Your task to perform on an android device: check the backup settings in the google photos Image 0: 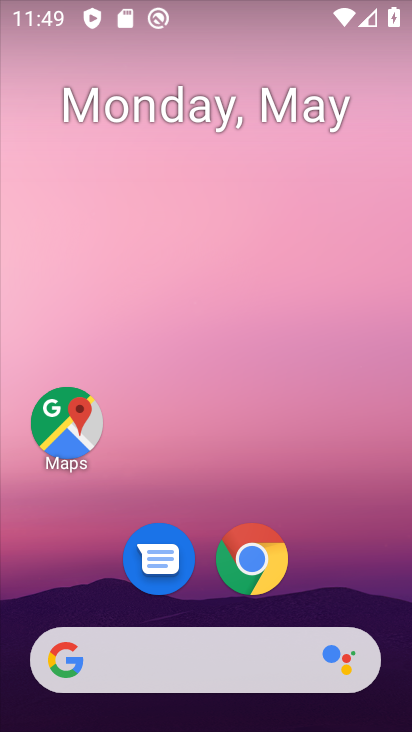
Step 0: drag from (326, 478) to (335, 16)
Your task to perform on an android device: check the backup settings in the google photos Image 1: 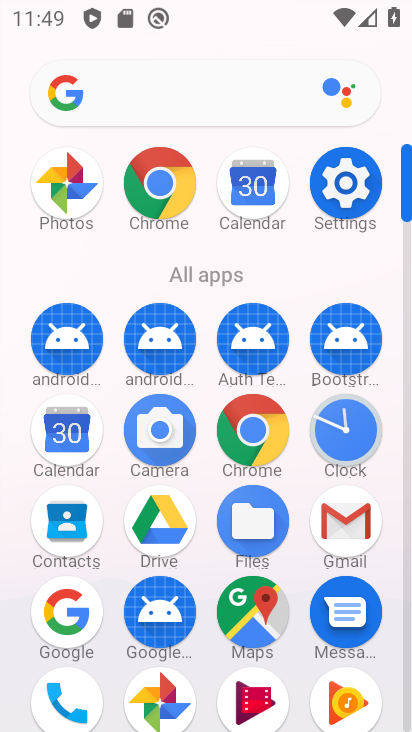
Step 1: click (69, 184)
Your task to perform on an android device: check the backup settings in the google photos Image 2: 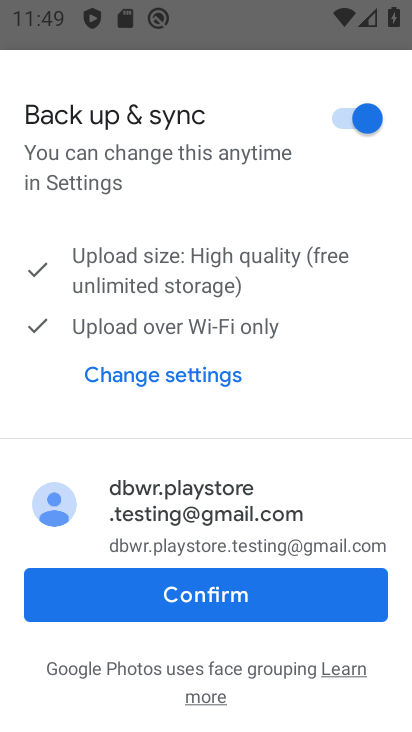
Step 2: click (235, 606)
Your task to perform on an android device: check the backup settings in the google photos Image 3: 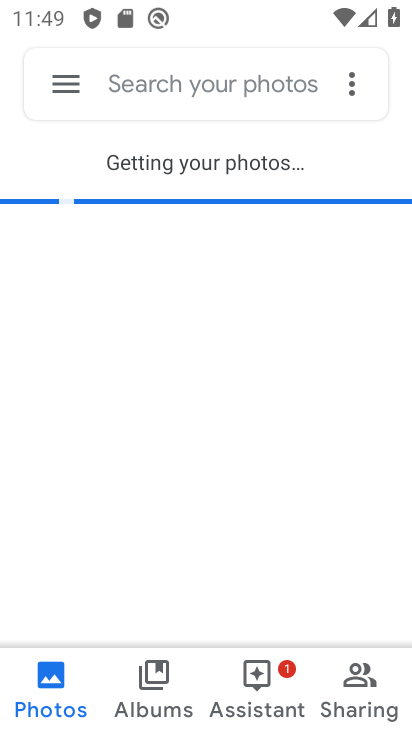
Step 3: click (65, 77)
Your task to perform on an android device: check the backup settings in the google photos Image 4: 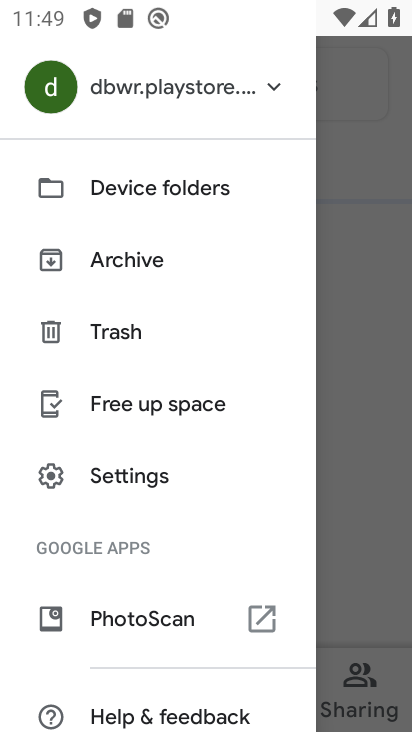
Step 4: click (143, 473)
Your task to perform on an android device: check the backup settings in the google photos Image 5: 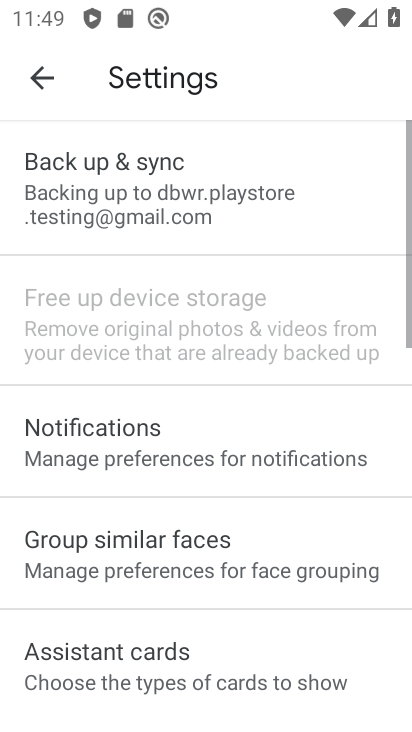
Step 5: click (91, 176)
Your task to perform on an android device: check the backup settings in the google photos Image 6: 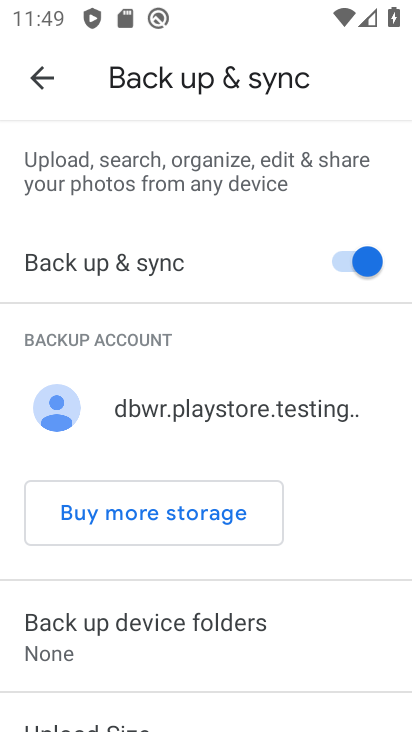
Step 6: task complete